Your task to perform on an android device: Open CNN.com Image 0: 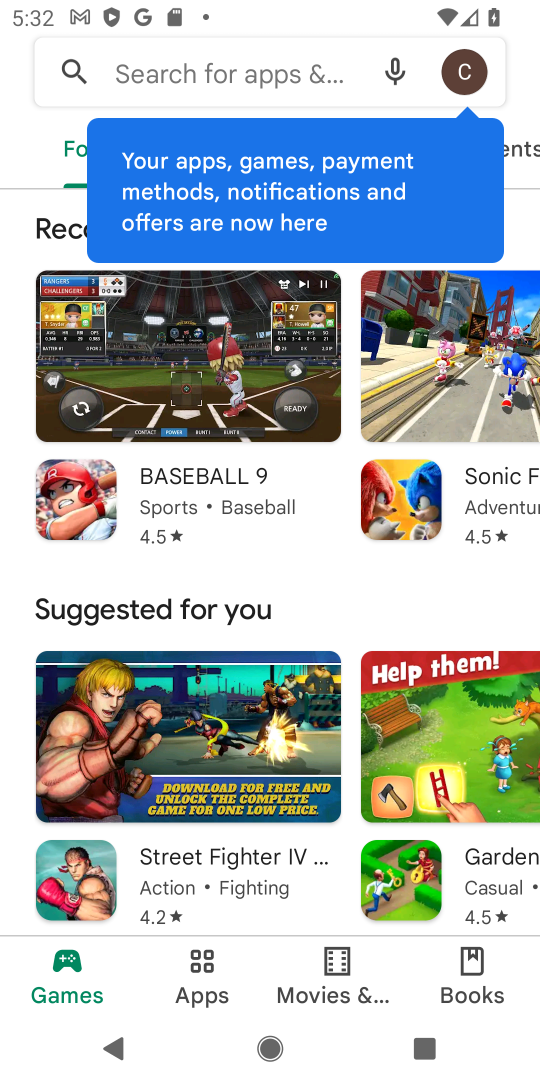
Step 0: press home button
Your task to perform on an android device: Open CNN.com Image 1: 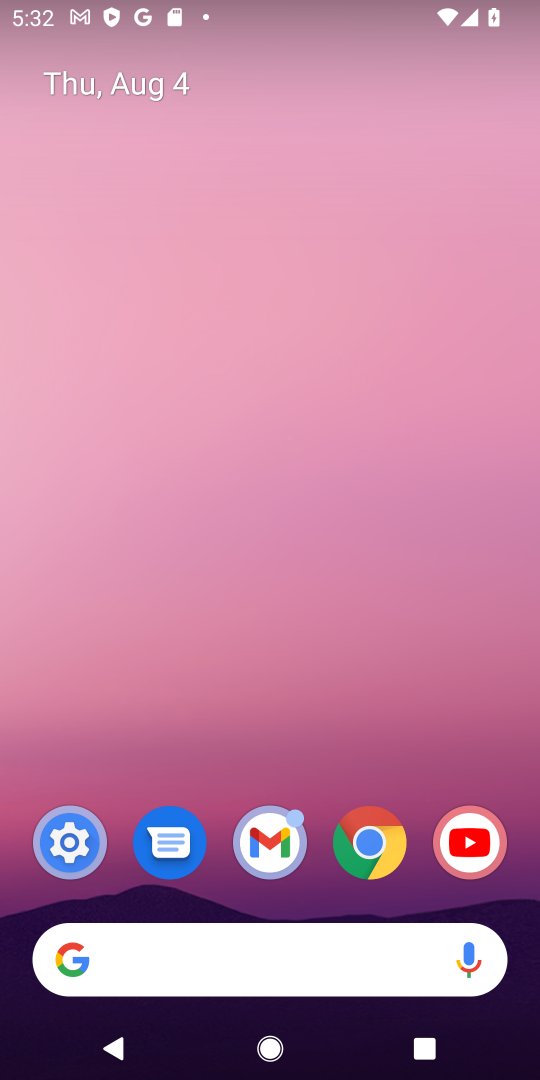
Step 1: drag from (369, 252) to (389, 26)
Your task to perform on an android device: Open CNN.com Image 2: 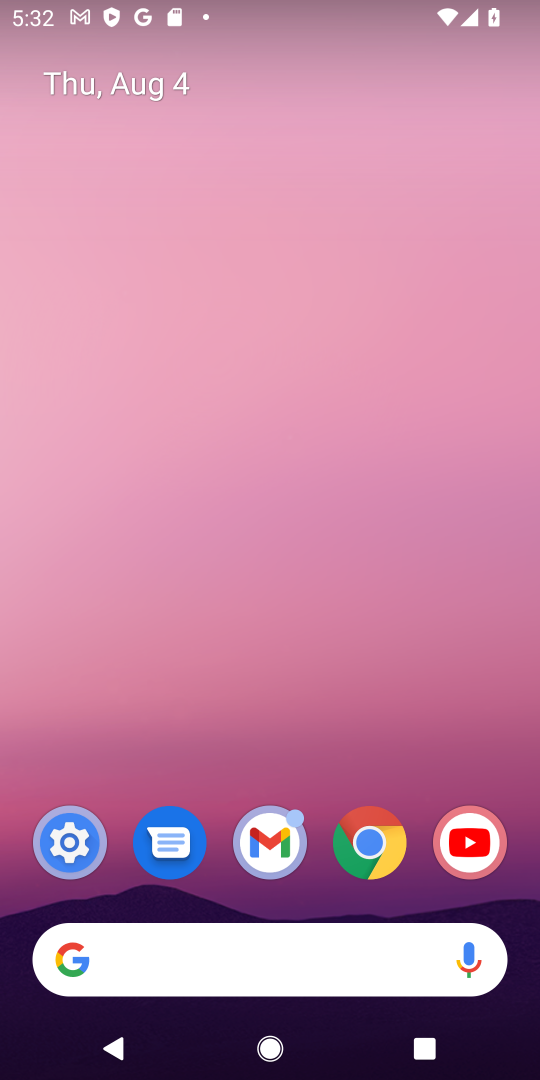
Step 2: drag from (324, 716) to (288, 16)
Your task to perform on an android device: Open CNN.com Image 3: 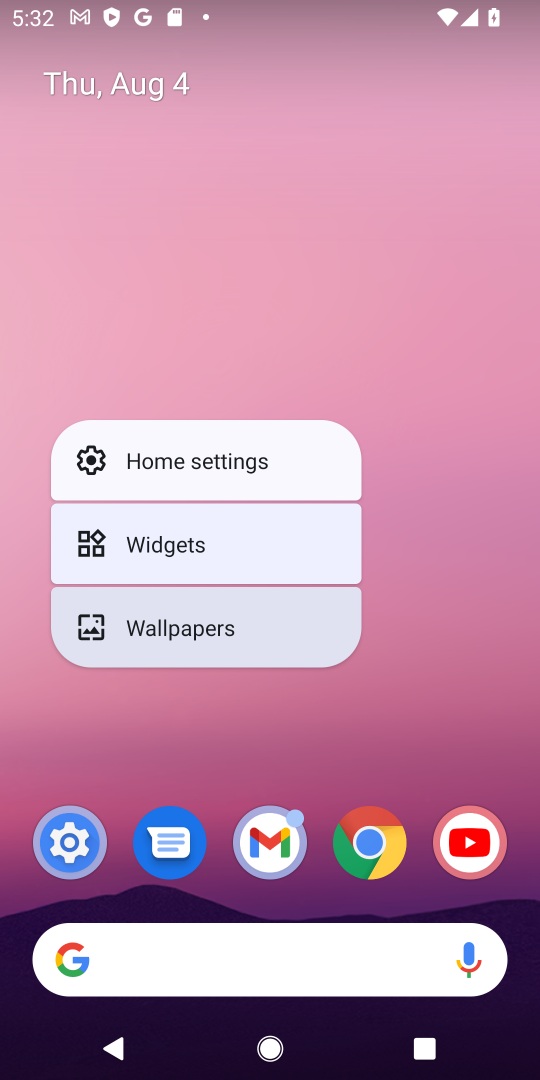
Step 3: click (417, 609)
Your task to perform on an android device: Open CNN.com Image 4: 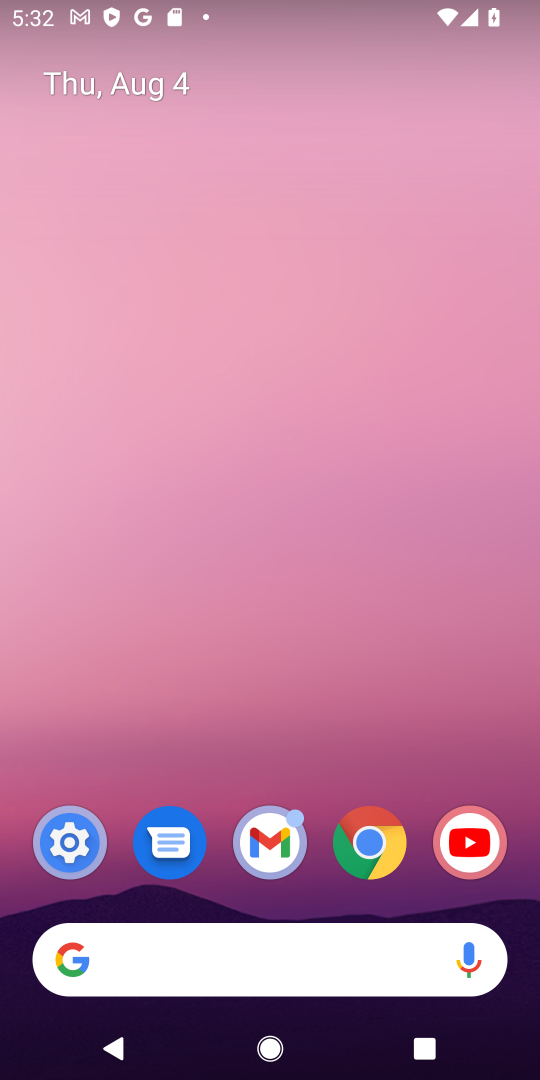
Step 4: drag from (333, 791) to (314, 128)
Your task to perform on an android device: Open CNN.com Image 5: 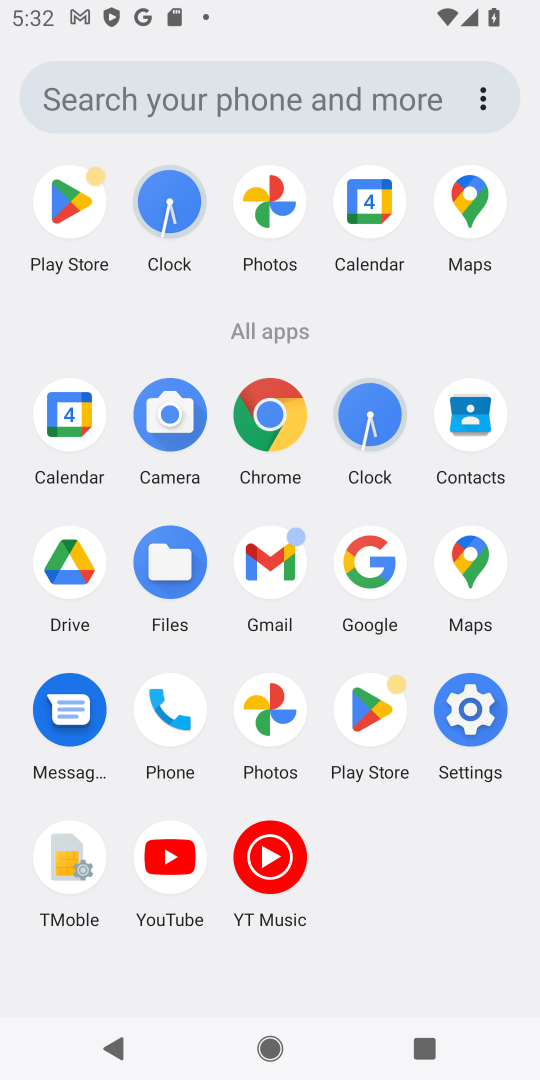
Step 5: click (270, 415)
Your task to perform on an android device: Open CNN.com Image 6: 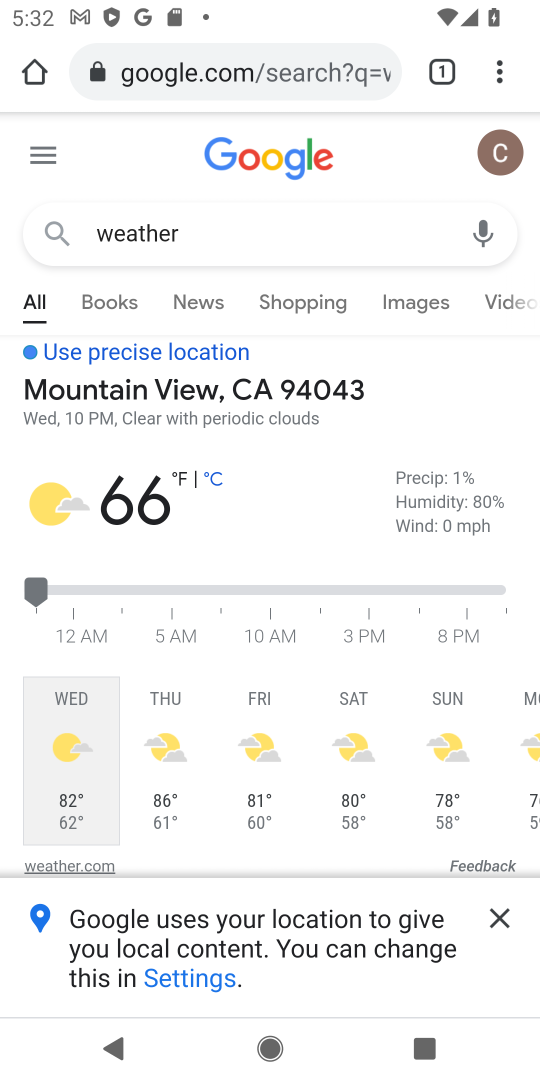
Step 6: click (223, 57)
Your task to perform on an android device: Open CNN.com Image 7: 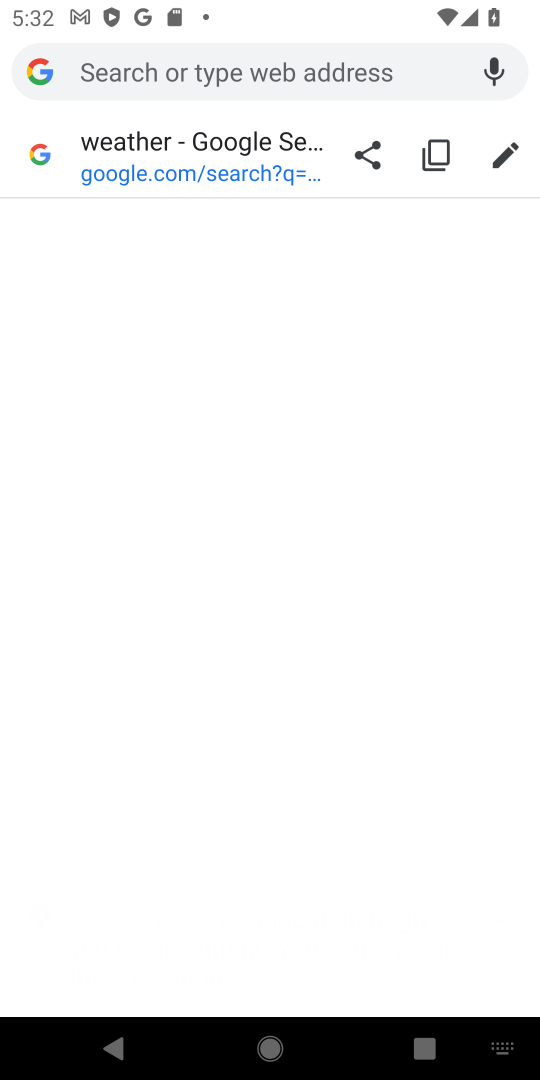
Step 7: type "cnn..com"
Your task to perform on an android device: Open CNN.com Image 8: 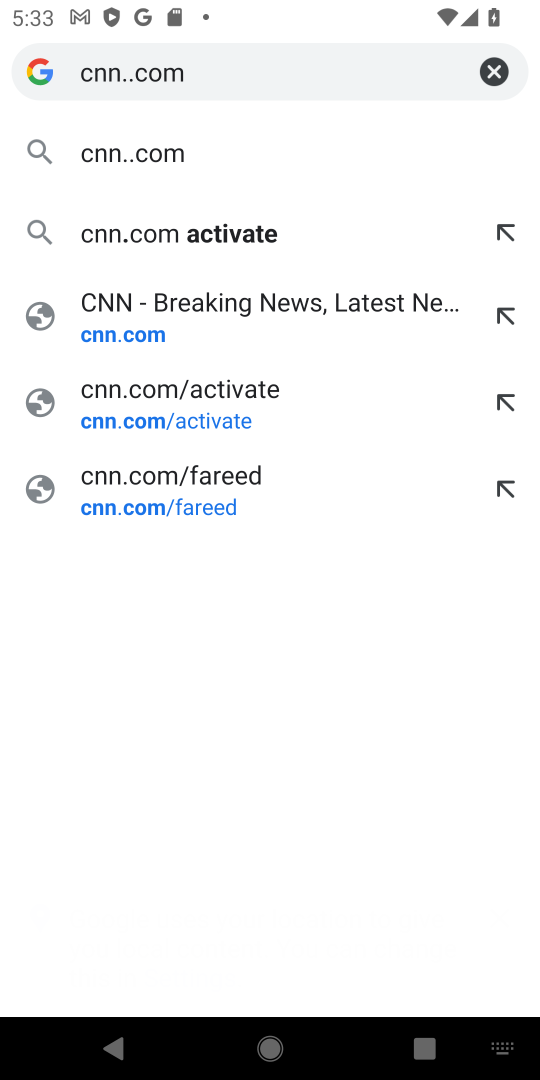
Step 8: click (105, 149)
Your task to perform on an android device: Open CNN.com Image 9: 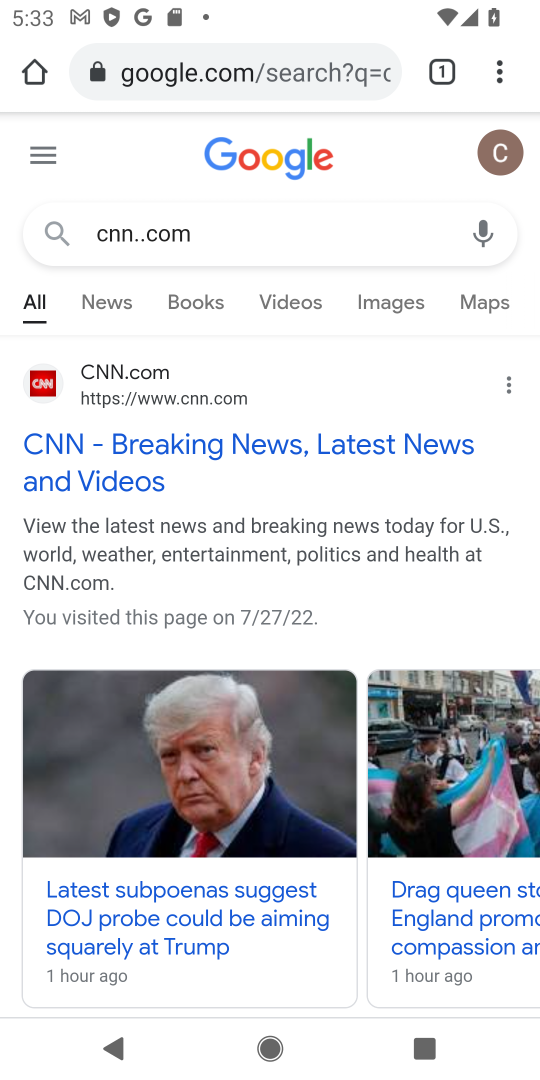
Step 9: click (337, 438)
Your task to perform on an android device: Open CNN.com Image 10: 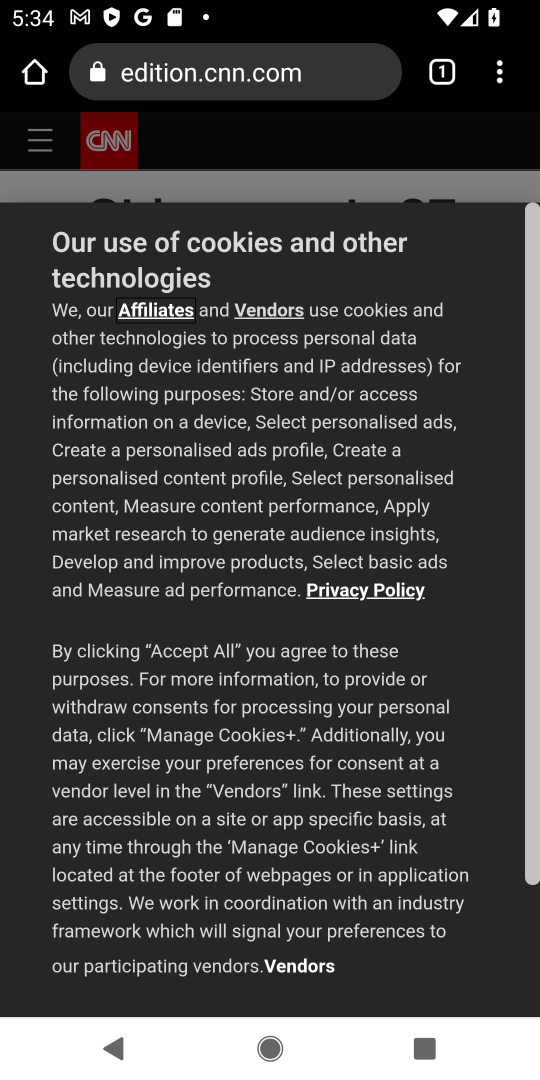
Step 10: task complete